Your task to perform on an android device: Open Google Chrome and open the bookmarks view Image 0: 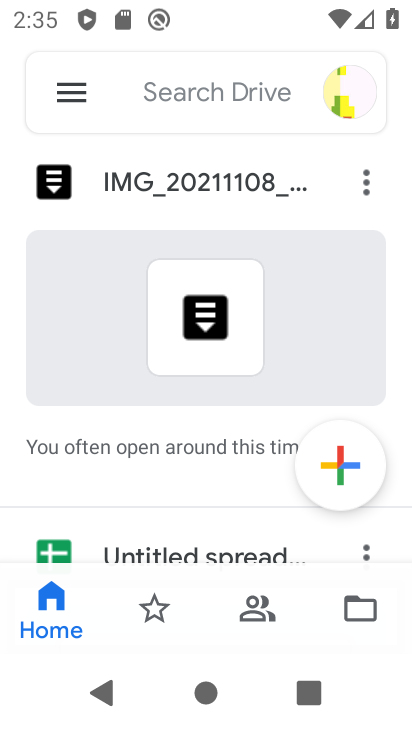
Step 0: press home button
Your task to perform on an android device: Open Google Chrome and open the bookmarks view Image 1: 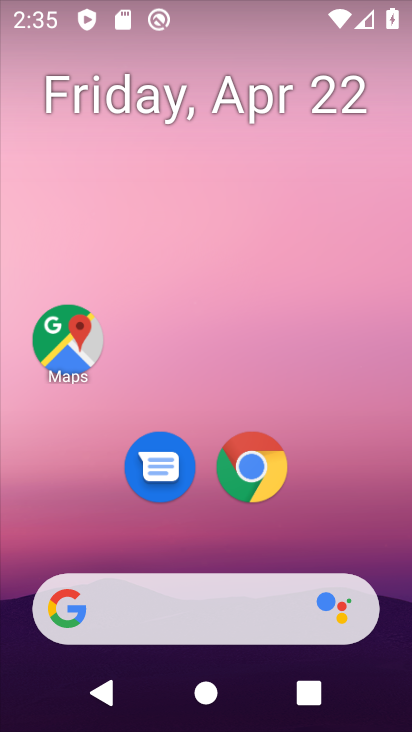
Step 1: click (262, 453)
Your task to perform on an android device: Open Google Chrome and open the bookmarks view Image 2: 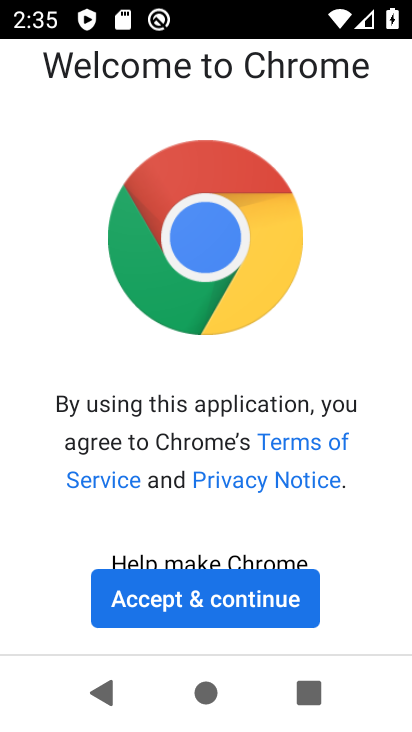
Step 2: click (226, 587)
Your task to perform on an android device: Open Google Chrome and open the bookmarks view Image 3: 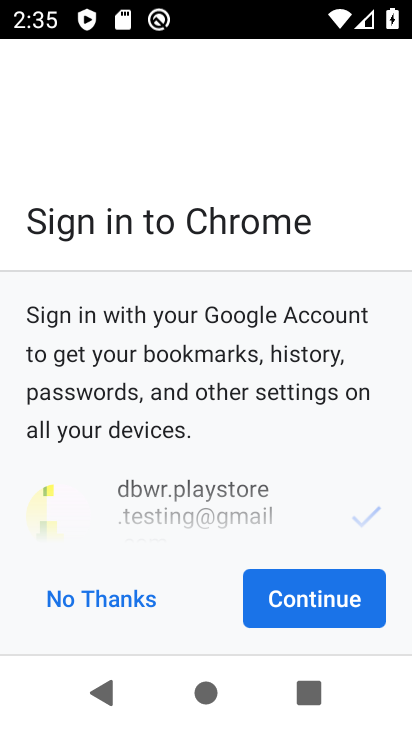
Step 3: click (316, 610)
Your task to perform on an android device: Open Google Chrome and open the bookmarks view Image 4: 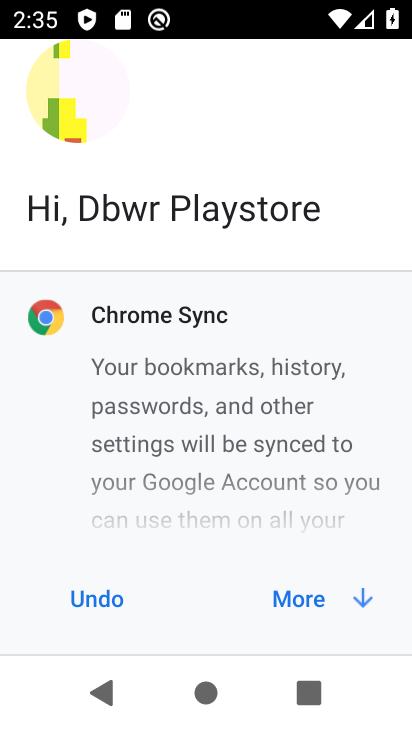
Step 4: click (316, 610)
Your task to perform on an android device: Open Google Chrome and open the bookmarks view Image 5: 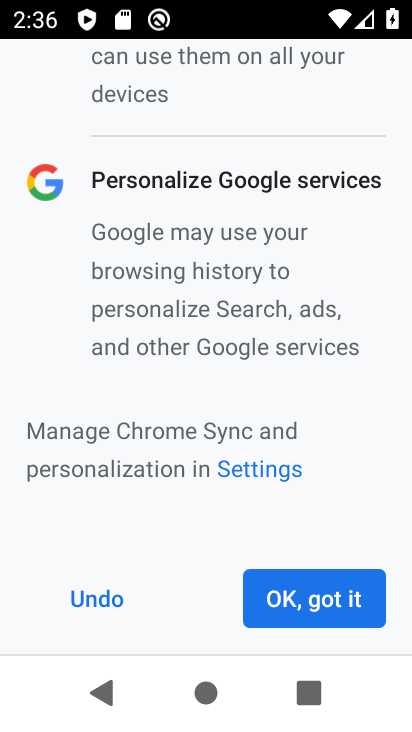
Step 5: click (316, 610)
Your task to perform on an android device: Open Google Chrome and open the bookmarks view Image 6: 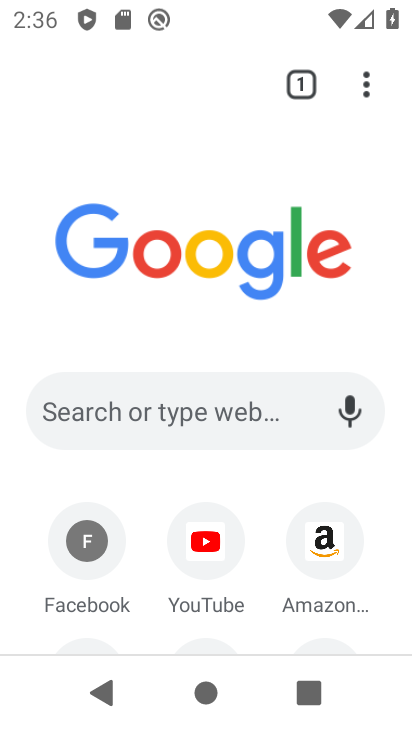
Step 6: click (365, 104)
Your task to perform on an android device: Open Google Chrome and open the bookmarks view Image 7: 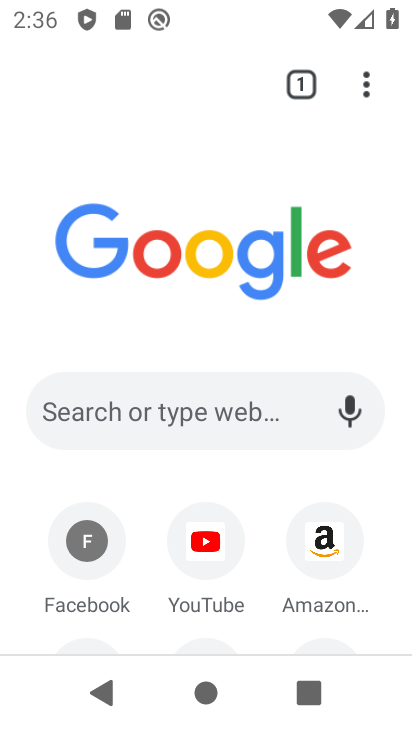
Step 7: task complete